Your task to perform on an android device: Set the phone to "Do not disturb". Image 0: 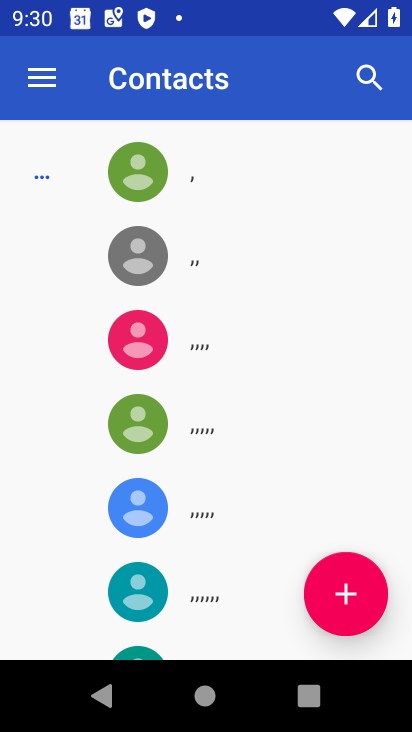
Step 0: press home button
Your task to perform on an android device: Set the phone to "Do not disturb". Image 1: 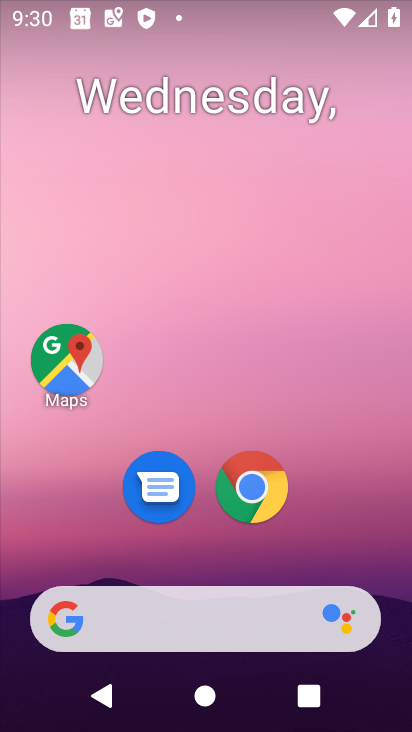
Step 1: drag from (240, 663) to (115, 202)
Your task to perform on an android device: Set the phone to "Do not disturb". Image 2: 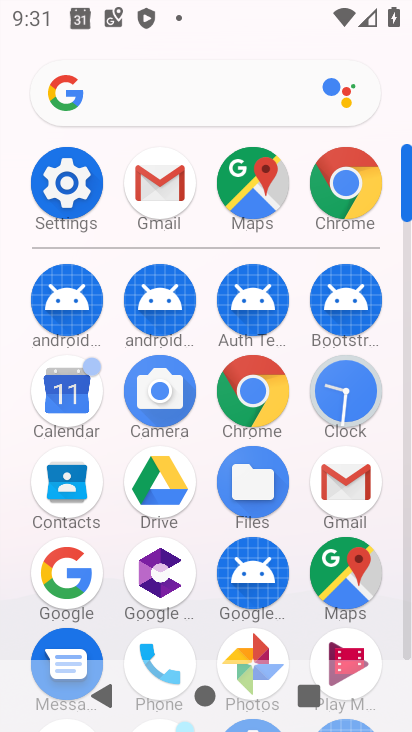
Step 2: click (70, 186)
Your task to perform on an android device: Set the phone to "Do not disturb". Image 3: 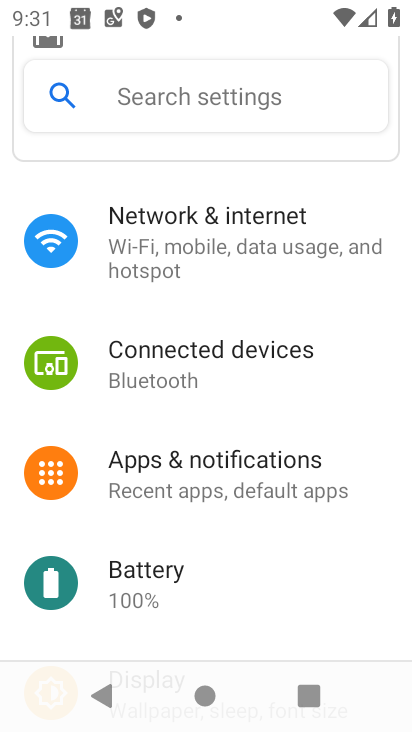
Step 3: click (185, 92)
Your task to perform on an android device: Set the phone to "Do not disturb". Image 4: 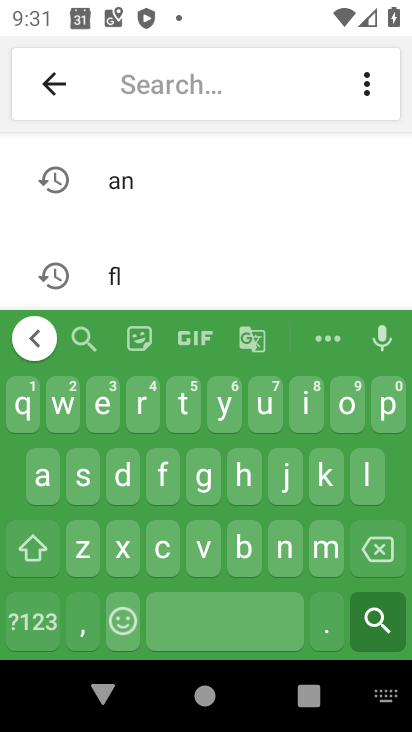
Step 4: click (113, 485)
Your task to perform on an android device: Set the phone to "Do not disturb". Image 5: 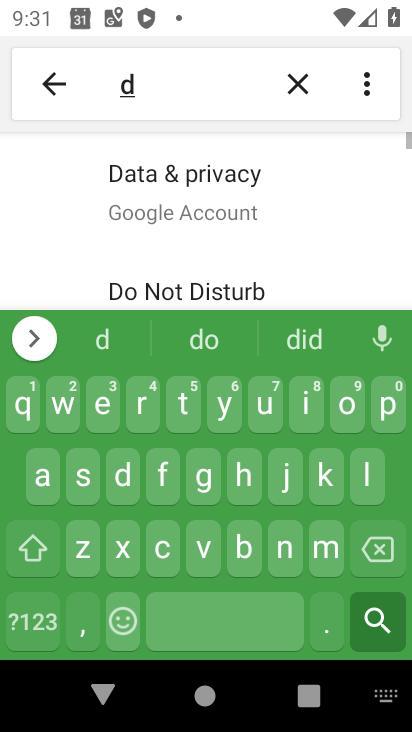
Step 5: click (280, 557)
Your task to perform on an android device: Set the phone to "Do not disturb". Image 6: 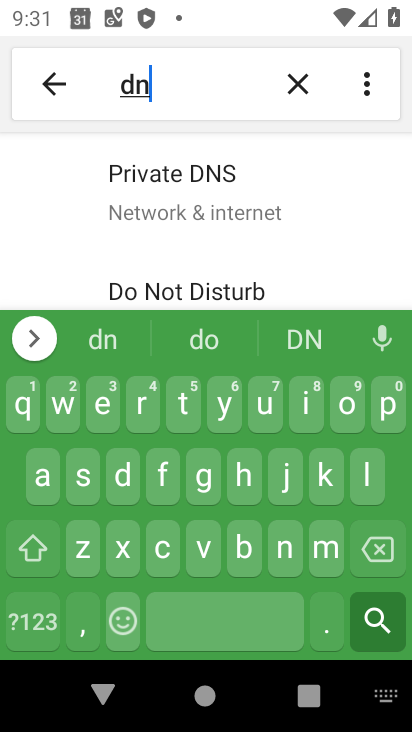
Step 6: click (220, 281)
Your task to perform on an android device: Set the phone to "Do not disturb". Image 7: 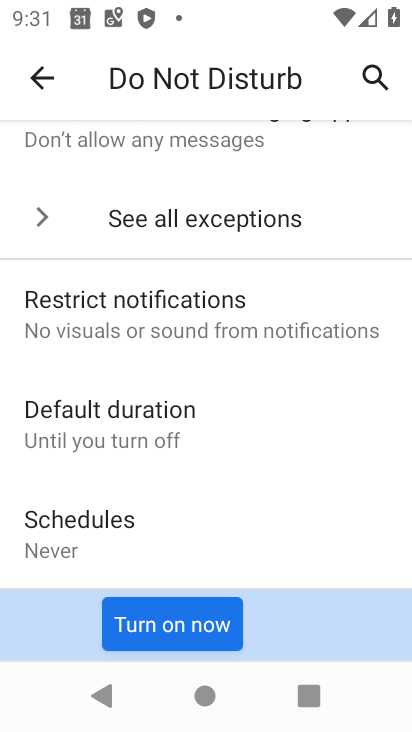
Step 7: click (187, 639)
Your task to perform on an android device: Set the phone to "Do not disturb". Image 8: 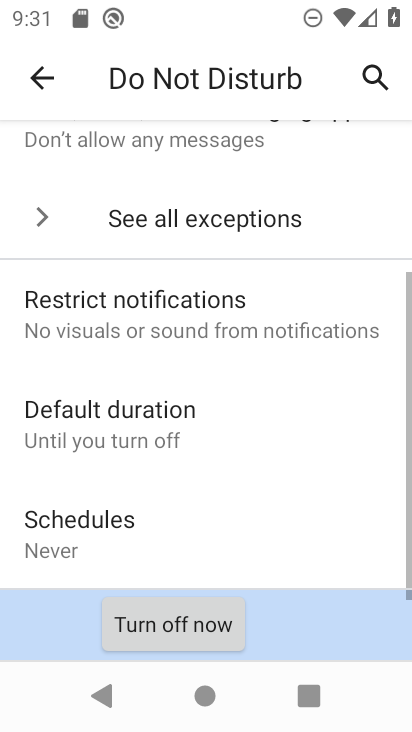
Step 8: task complete